Your task to perform on an android device: turn on sleep mode Image 0: 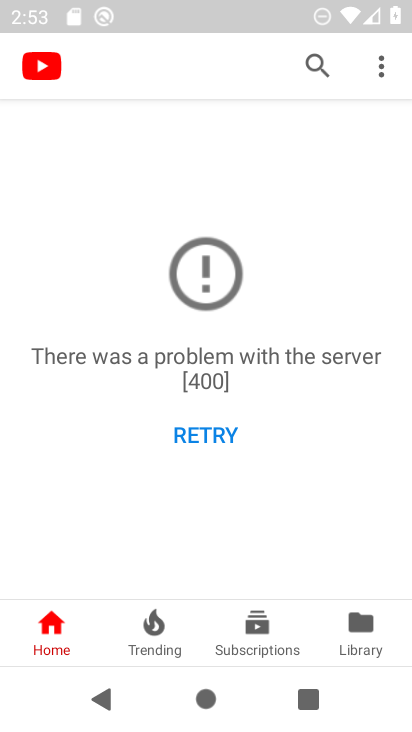
Step 0: press back button
Your task to perform on an android device: turn on sleep mode Image 1: 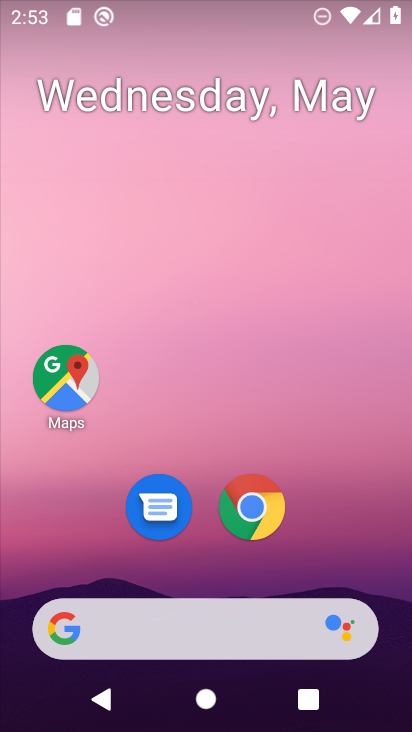
Step 1: press home button
Your task to perform on an android device: turn on sleep mode Image 2: 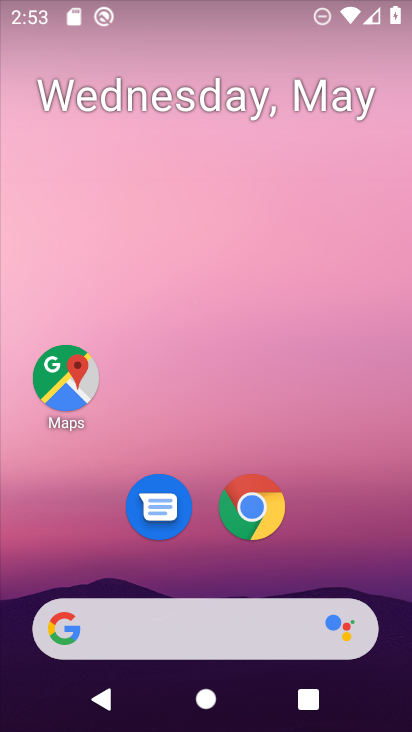
Step 2: drag from (190, 542) to (260, 17)
Your task to perform on an android device: turn on sleep mode Image 3: 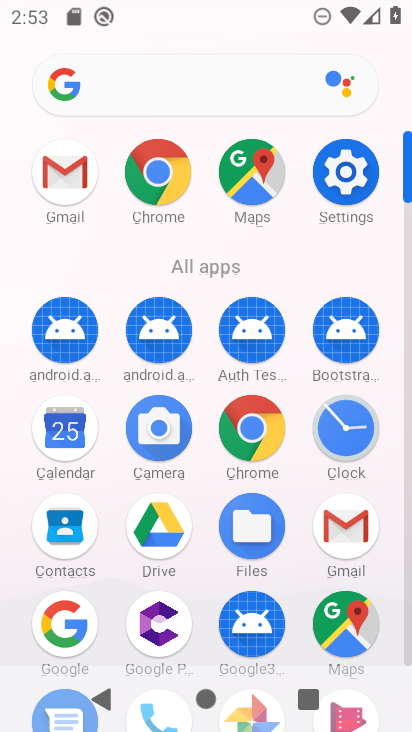
Step 3: click (338, 192)
Your task to perform on an android device: turn on sleep mode Image 4: 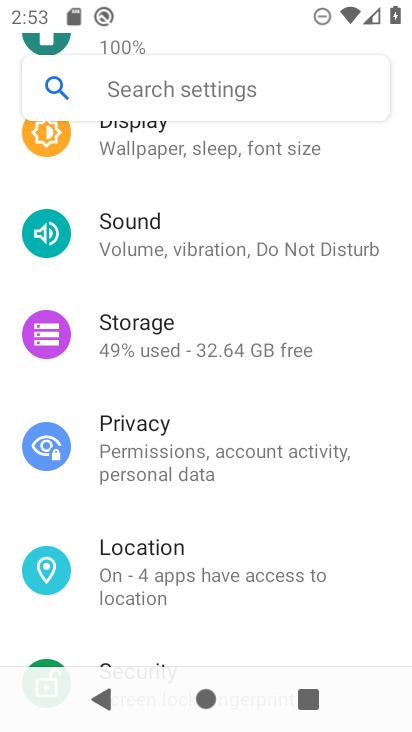
Step 4: click (180, 105)
Your task to perform on an android device: turn on sleep mode Image 5: 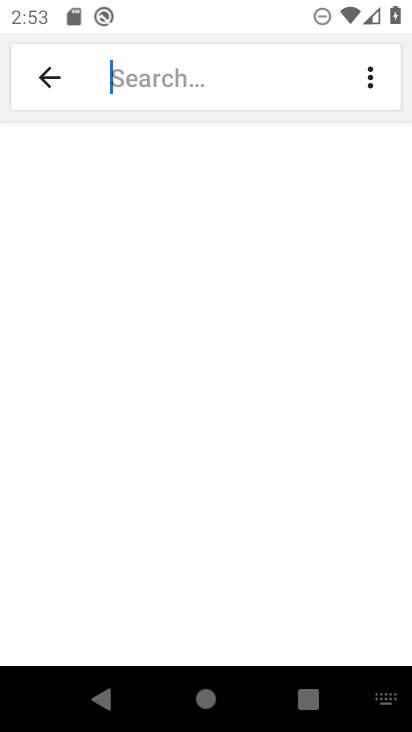
Step 5: type "sleep mode"
Your task to perform on an android device: turn on sleep mode Image 6: 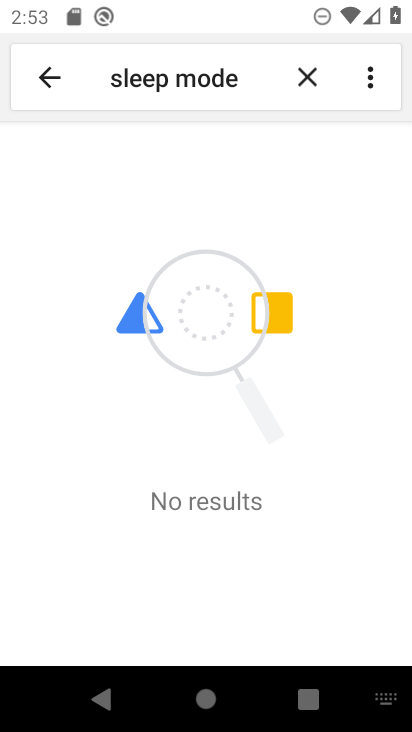
Step 6: task complete